Your task to perform on an android device: Open settings Image 0: 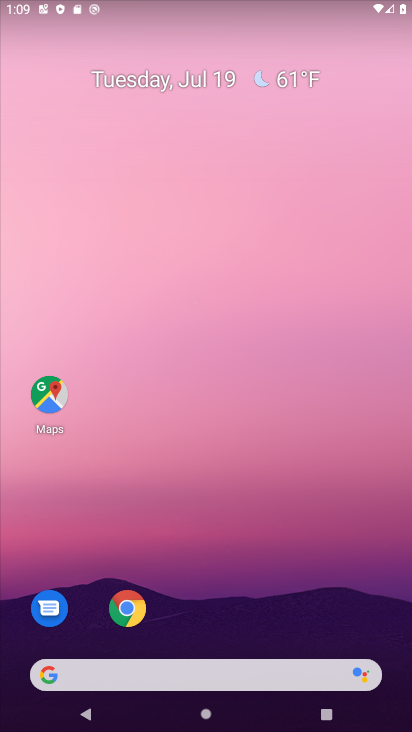
Step 0: drag from (269, 640) to (249, 71)
Your task to perform on an android device: Open settings Image 1: 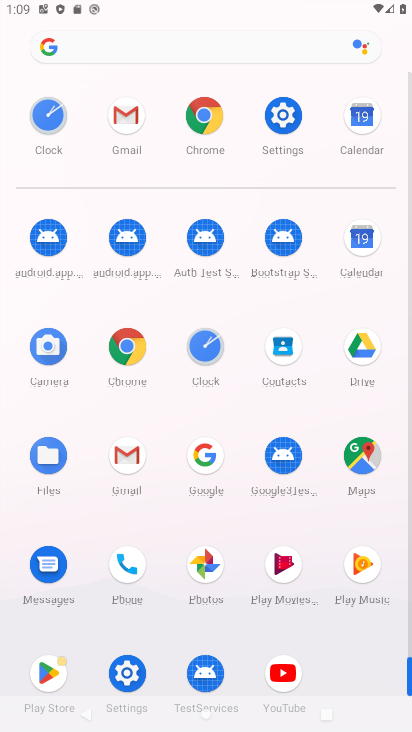
Step 1: click (273, 110)
Your task to perform on an android device: Open settings Image 2: 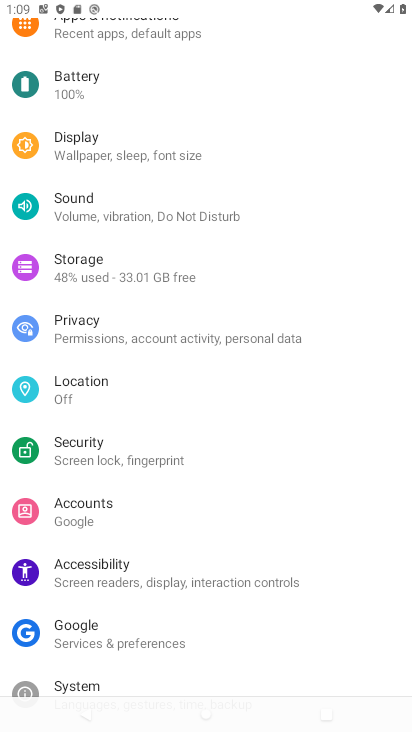
Step 2: task complete